Your task to perform on an android device: find snoozed emails in the gmail app Image 0: 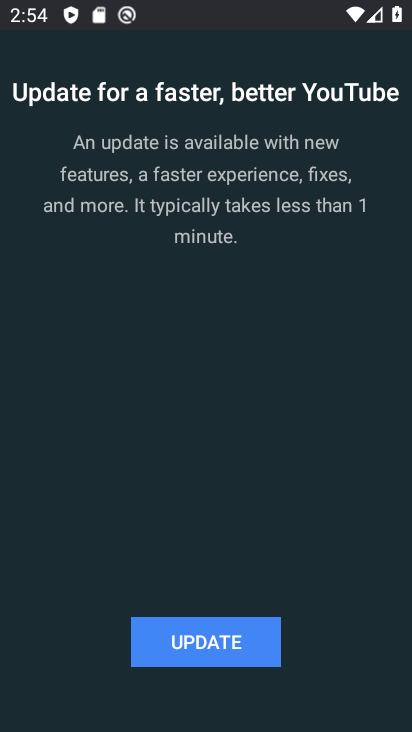
Step 0: press home button
Your task to perform on an android device: find snoozed emails in the gmail app Image 1: 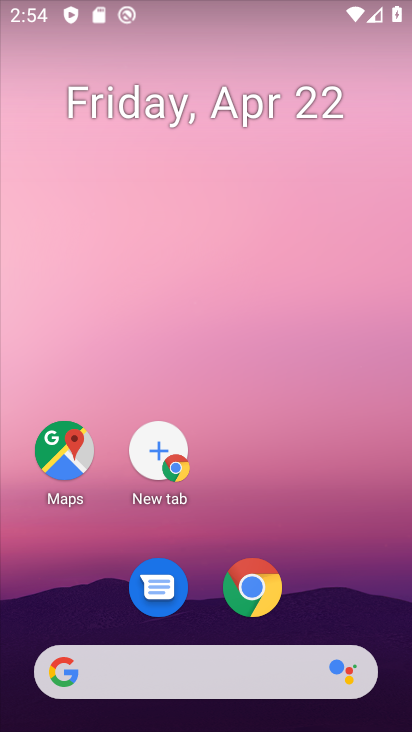
Step 1: drag from (173, 520) to (232, 90)
Your task to perform on an android device: find snoozed emails in the gmail app Image 2: 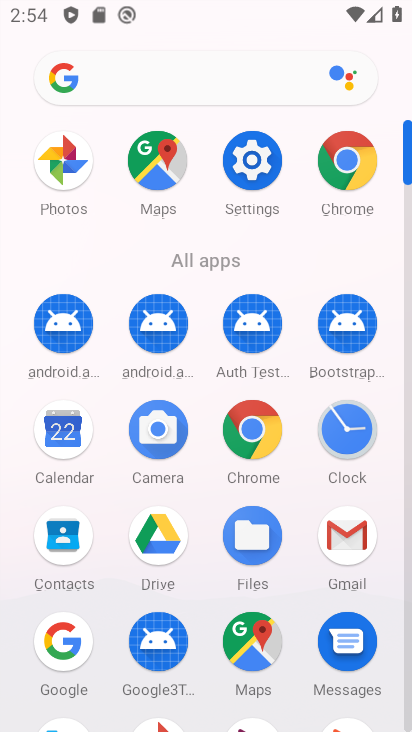
Step 2: click (341, 543)
Your task to perform on an android device: find snoozed emails in the gmail app Image 3: 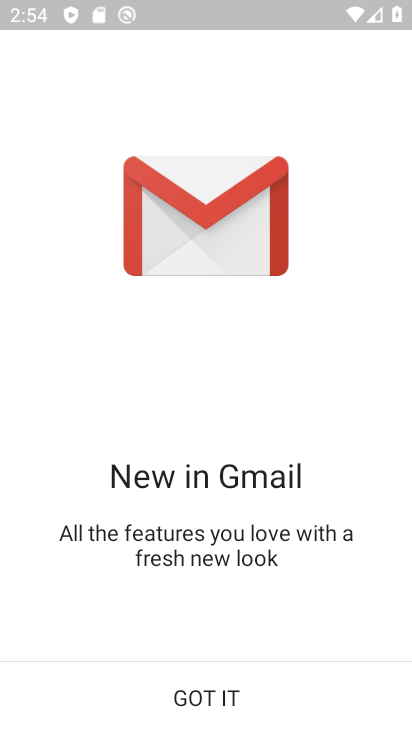
Step 3: click (198, 694)
Your task to perform on an android device: find snoozed emails in the gmail app Image 4: 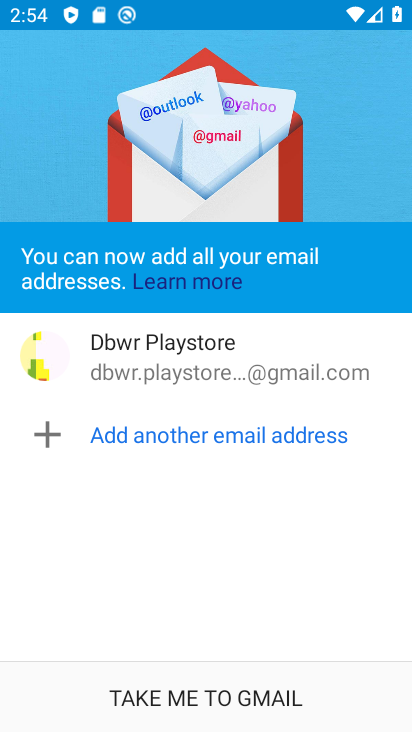
Step 4: click (198, 694)
Your task to perform on an android device: find snoozed emails in the gmail app Image 5: 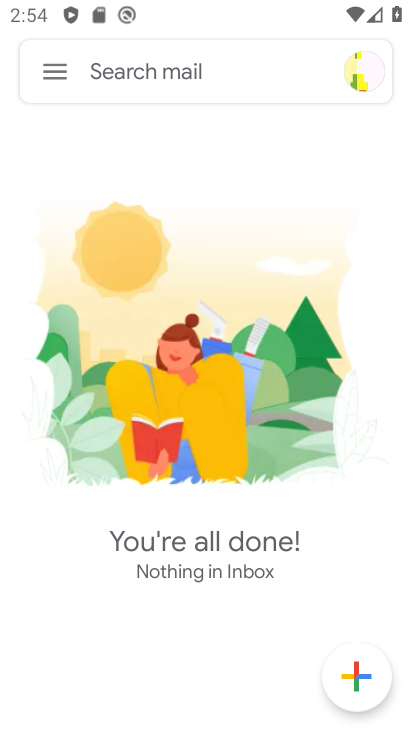
Step 5: click (59, 78)
Your task to perform on an android device: find snoozed emails in the gmail app Image 6: 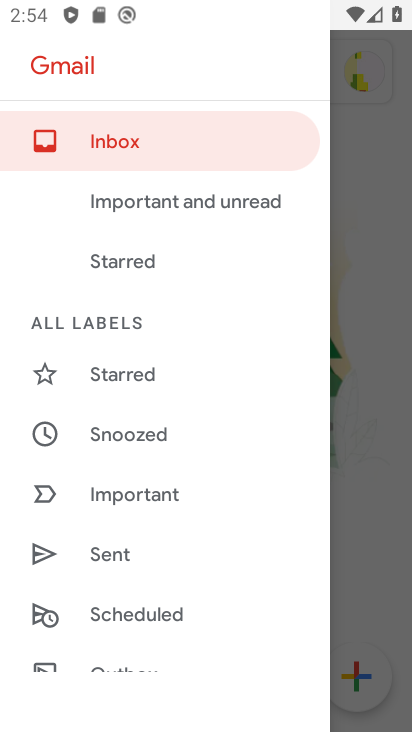
Step 6: click (172, 449)
Your task to perform on an android device: find snoozed emails in the gmail app Image 7: 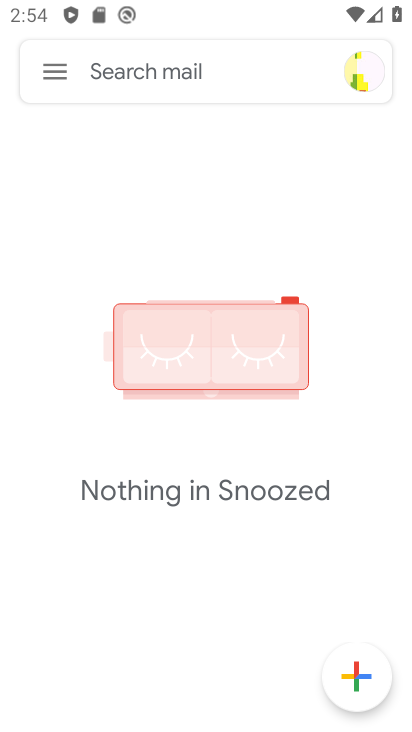
Step 7: task complete